Your task to perform on an android device: Go to Reddit.com Image 0: 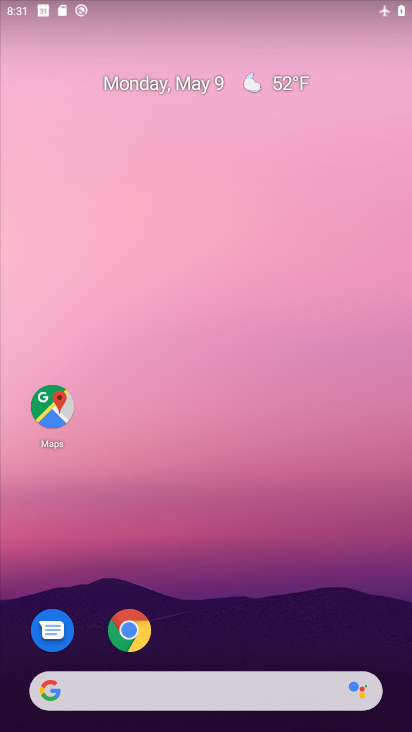
Step 0: click (132, 620)
Your task to perform on an android device: Go to Reddit.com Image 1: 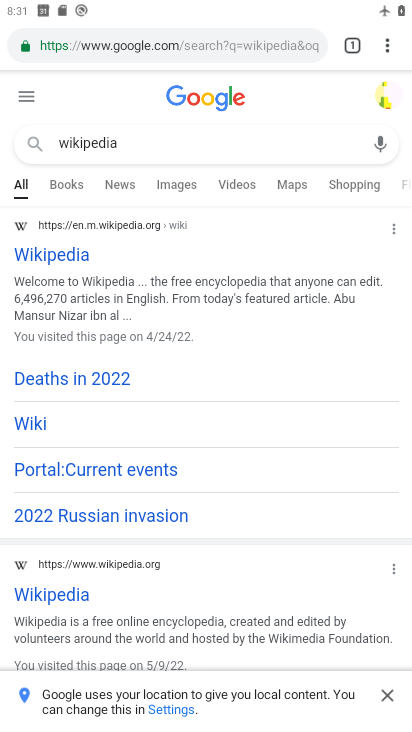
Step 1: click (186, 49)
Your task to perform on an android device: Go to Reddit.com Image 2: 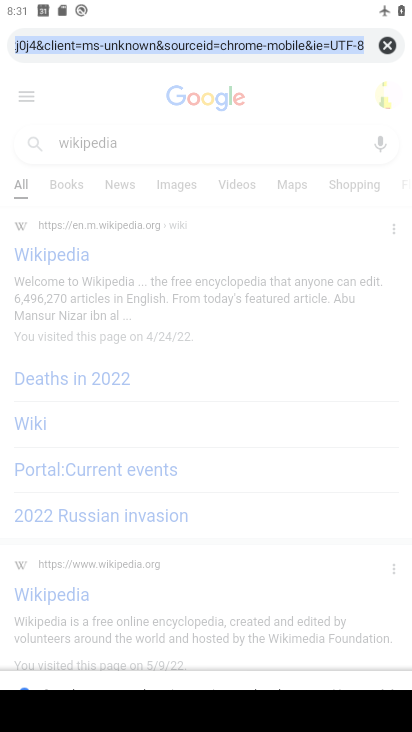
Step 2: type "Reddit.com"
Your task to perform on an android device: Go to Reddit.com Image 3: 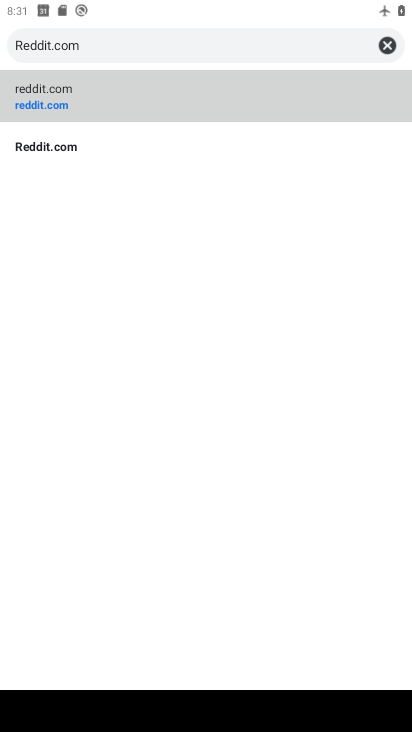
Step 3: click (109, 106)
Your task to perform on an android device: Go to Reddit.com Image 4: 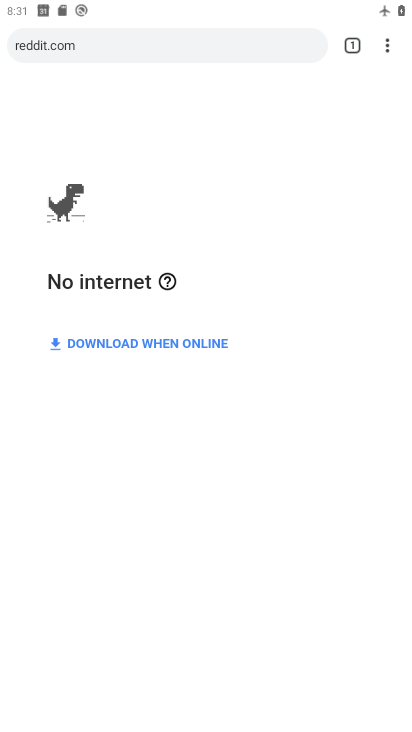
Step 4: task complete